Your task to perform on an android device: set the stopwatch Image 0: 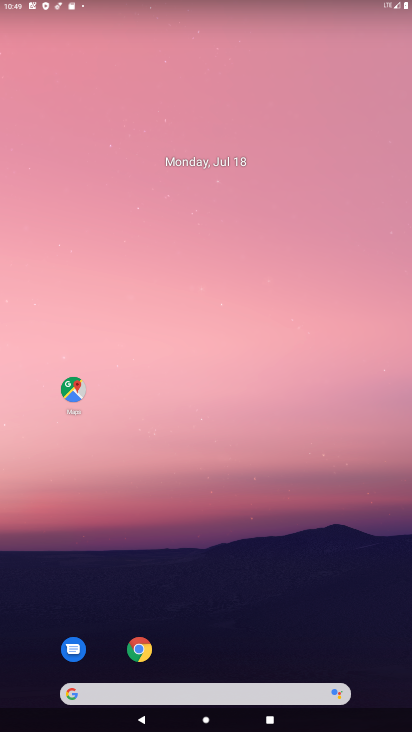
Step 0: drag from (238, 722) to (271, 134)
Your task to perform on an android device: set the stopwatch Image 1: 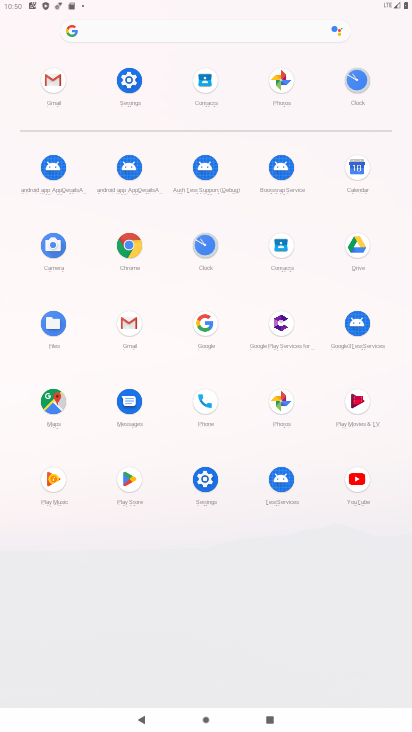
Step 1: click (204, 242)
Your task to perform on an android device: set the stopwatch Image 2: 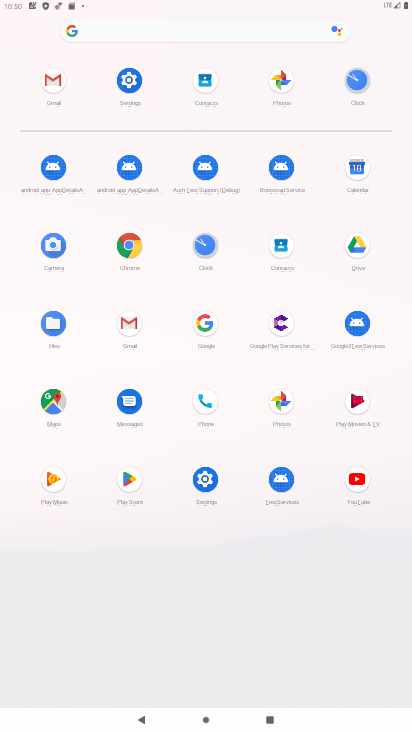
Step 2: click (204, 242)
Your task to perform on an android device: set the stopwatch Image 3: 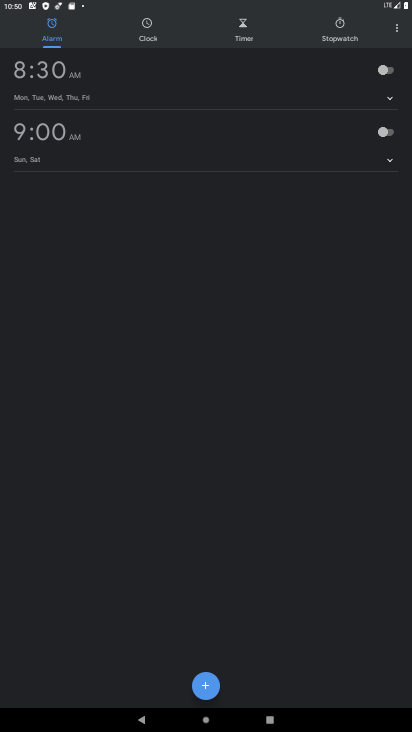
Step 3: click (345, 21)
Your task to perform on an android device: set the stopwatch Image 4: 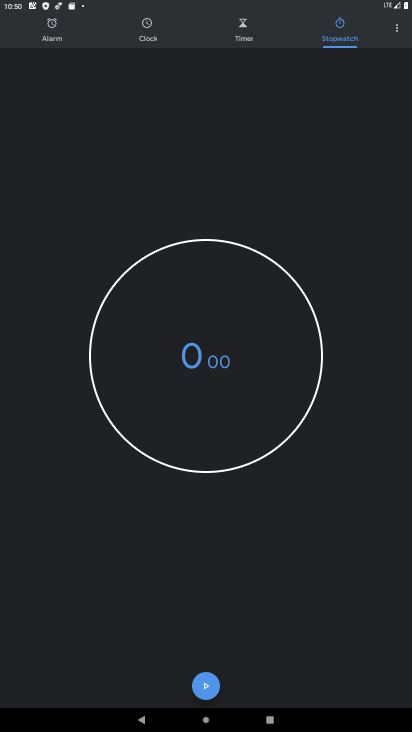
Step 4: task complete